Your task to perform on an android device: Go to Amazon Image 0: 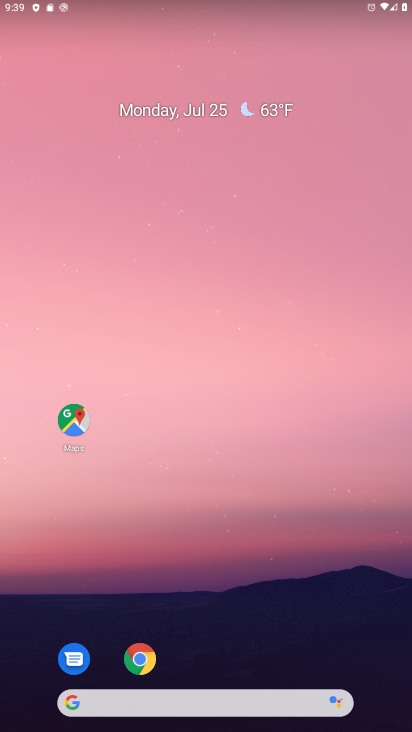
Step 0: click (135, 656)
Your task to perform on an android device: Go to Amazon Image 1: 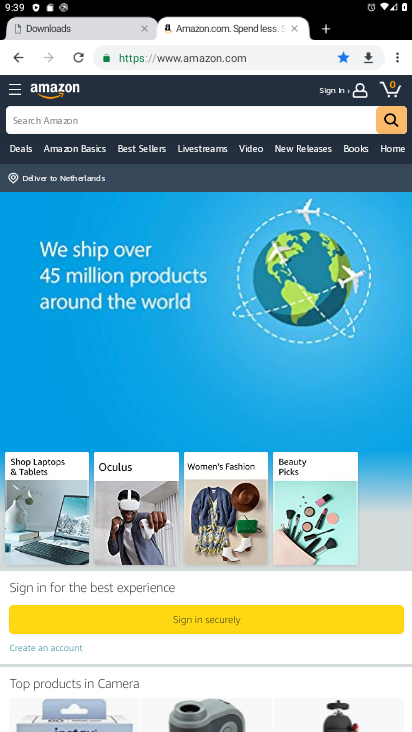
Step 1: task complete